Your task to perform on an android device: Go to CNN.com Image 0: 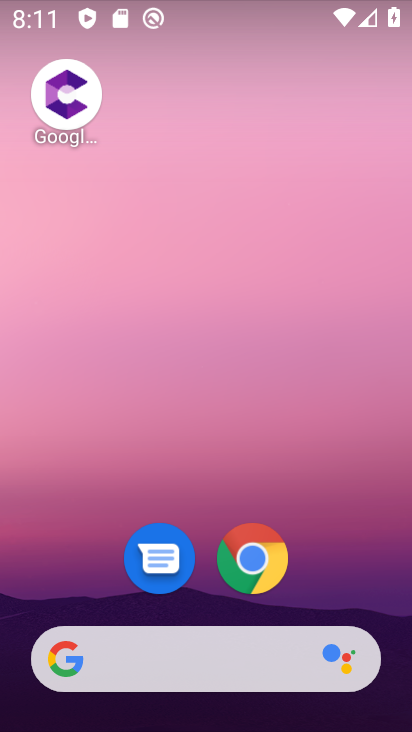
Step 0: click (252, 553)
Your task to perform on an android device: Go to CNN.com Image 1: 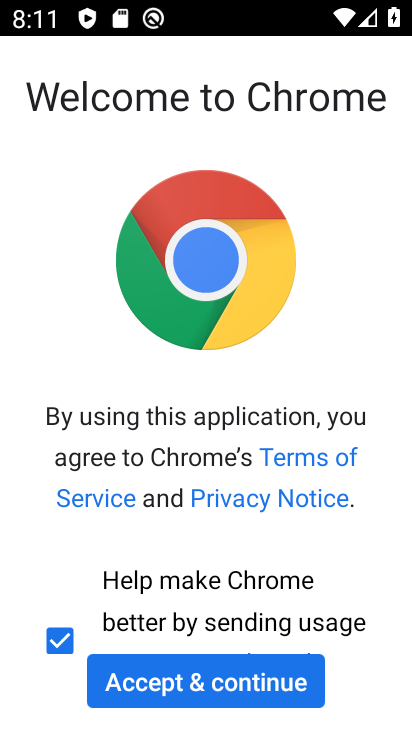
Step 1: click (258, 678)
Your task to perform on an android device: Go to CNN.com Image 2: 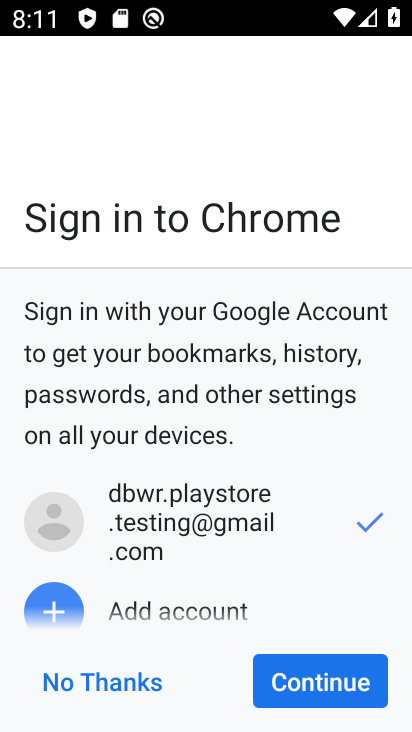
Step 2: click (331, 678)
Your task to perform on an android device: Go to CNN.com Image 3: 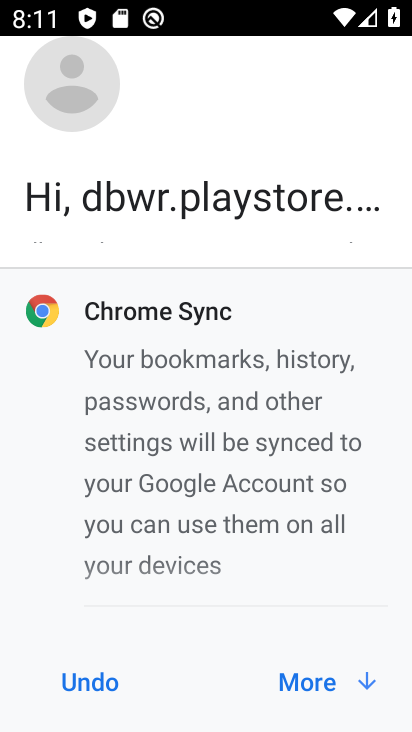
Step 3: click (316, 683)
Your task to perform on an android device: Go to CNN.com Image 4: 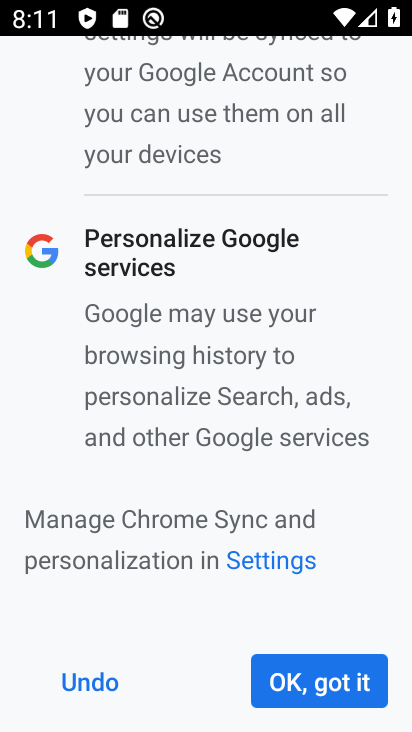
Step 4: click (314, 696)
Your task to perform on an android device: Go to CNN.com Image 5: 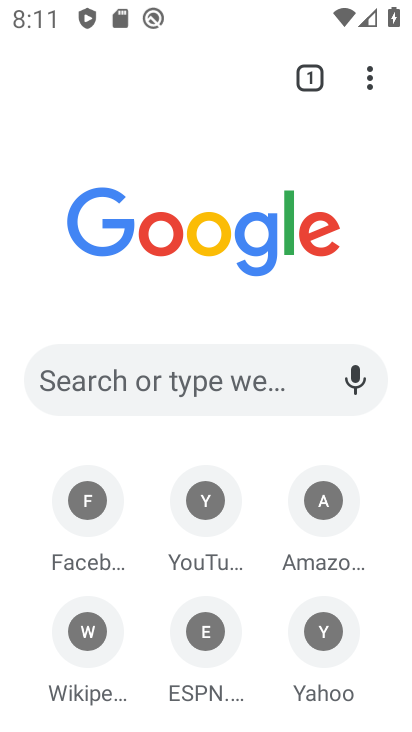
Step 5: click (224, 379)
Your task to perform on an android device: Go to CNN.com Image 6: 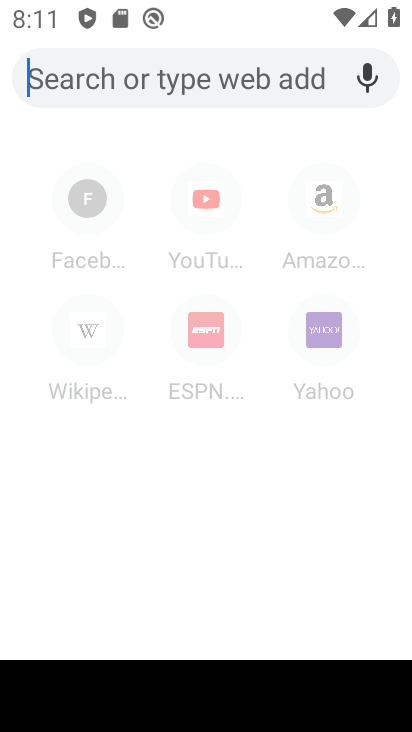
Step 6: type "cnn.com"
Your task to perform on an android device: Go to CNN.com Image 7: 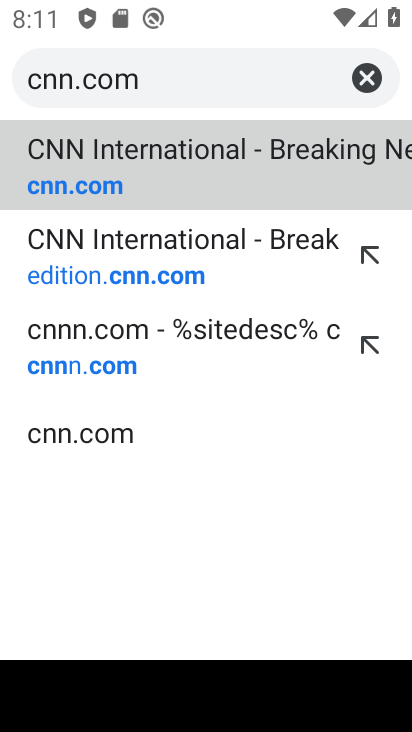
Step 7: click (92, 188)
Your task to perform on an android device: Go to CNN.com Image 8: 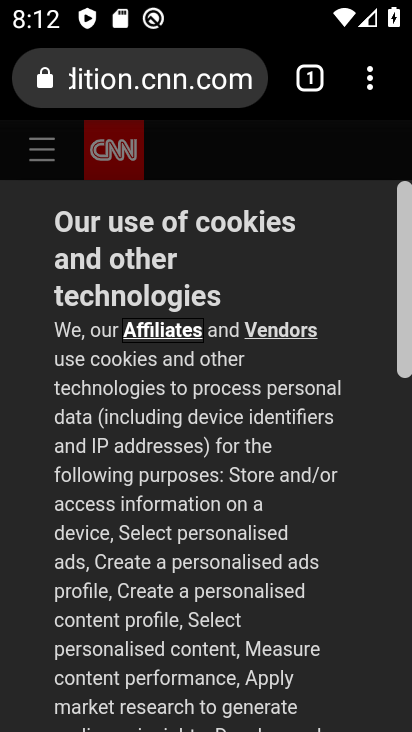
Step 8: task complete